Your task to perform on an android device: Show me popular videos on Youtube Image 0: 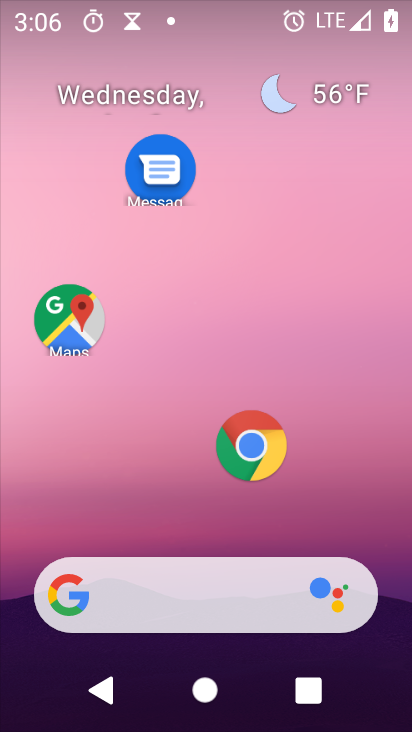
Step 0: drag from (191, 238) to (195, 29)
Your task to perform on an android device: Show me popular videos on Youtube Image 1: 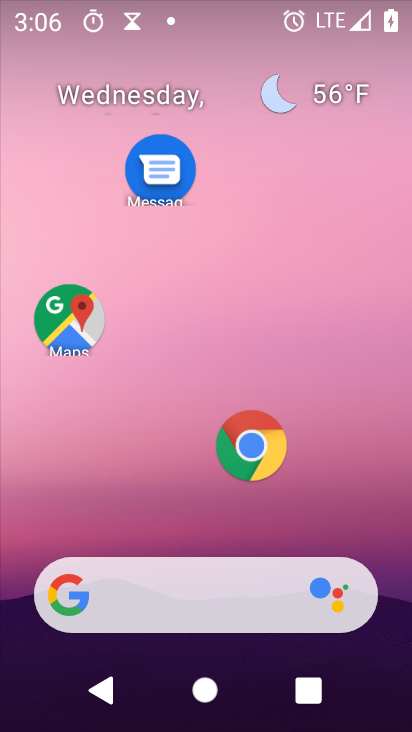
Step 1: drag from (163, 515) to (210, 0)
Your task to perform on an android device: Show me popular videos on Youtube Image 2: 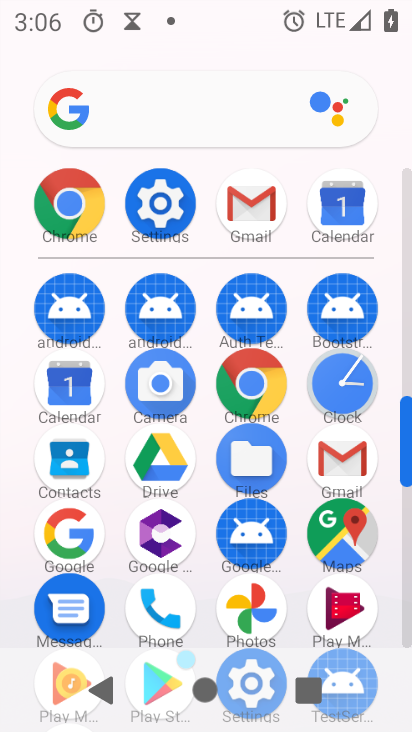
Step 2: drag from (213, 253) to (157, 0)
Your task to perform on an android device: Show me popular videos on Youtube Image 3: 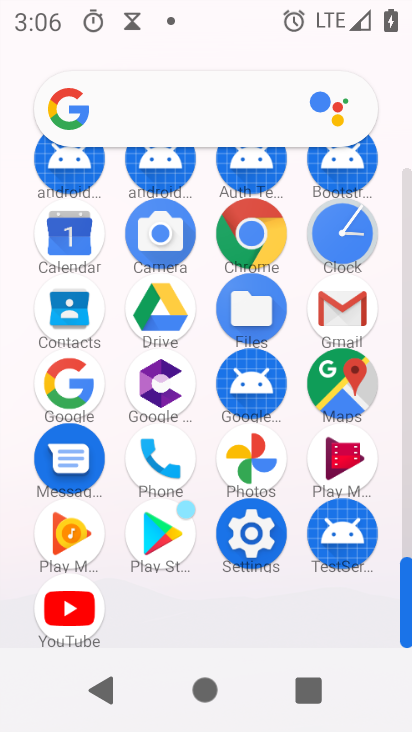
Step 3: click (80, 620)
Your task to perform on an android device: Show me popular videos on Youtube Image 4: 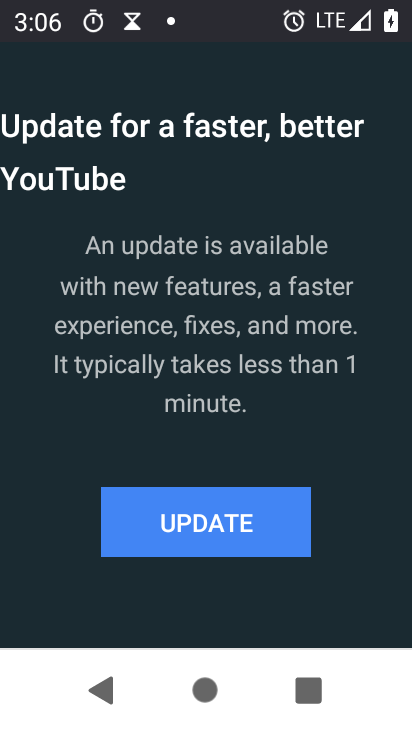
Step 4: click (211, 549)
Your task to perform on an android device: Show me popular videos on Youtube Image 5: 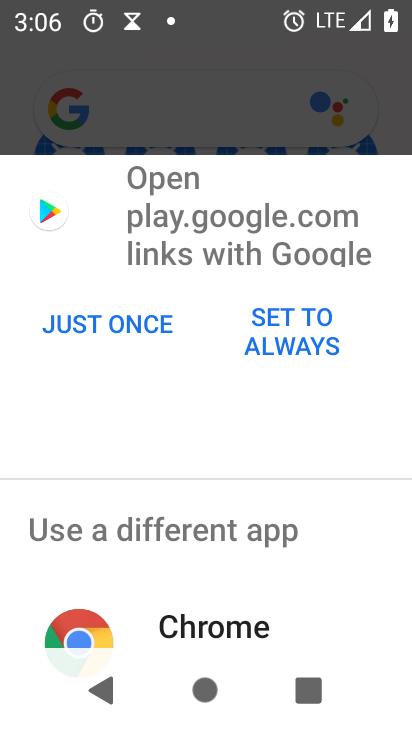
Step 5: click (92, 318)
Your task to perform on an android device: Show me popular videos on Youtube Image 6: 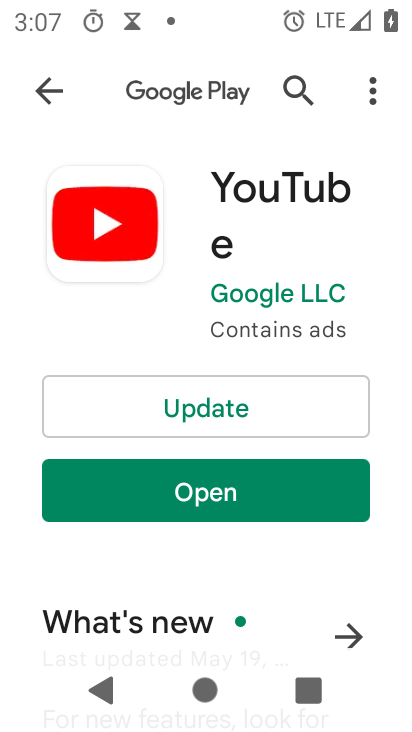
Step 6: click (212, 411)
Your task to perform on an android device: Show me popular videos on Youtube Image 7: 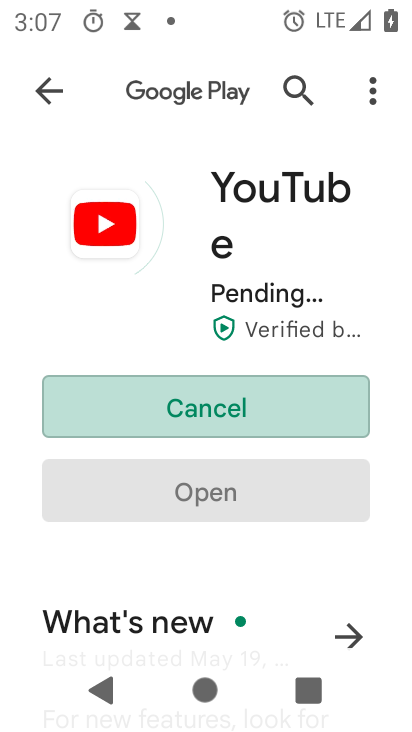
Step 7: click (119, 333)
Your task to perform on an android device: Show me popular videos on Youtube Image 8: 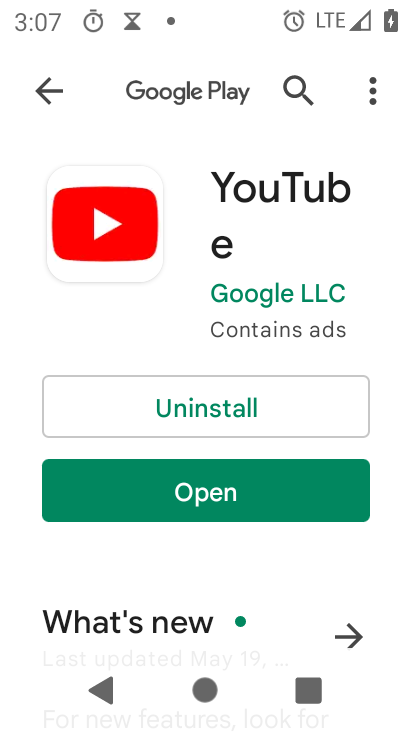
Step 8: click (217, 506)
Your task to perform on an android device: Show me popular videos on Youtube Image 9: 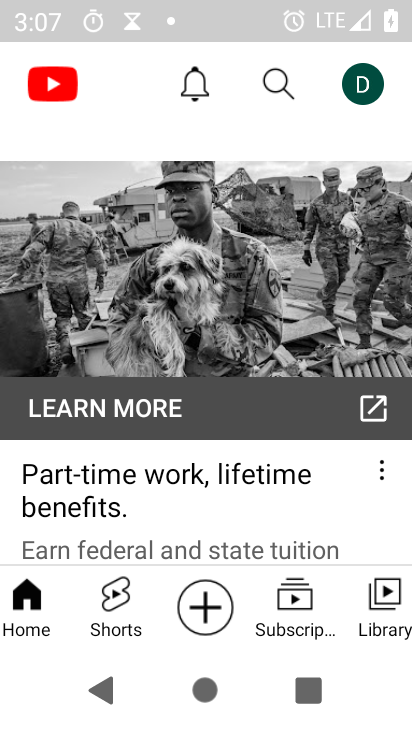
Step 9: click (25, 609)
Your task to perform on an android device: Show me popular videos on Youtube Image 10: 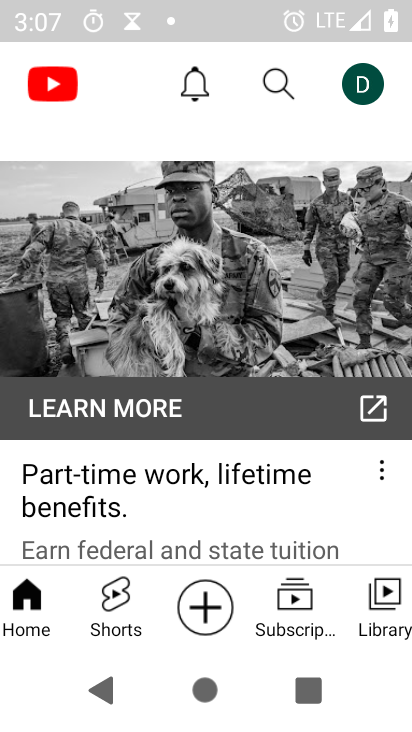
Step 10: drag from (128, 263) to (196, 523)
Your task to perform on an android device: Show me popular videos on Youtube Image 11: 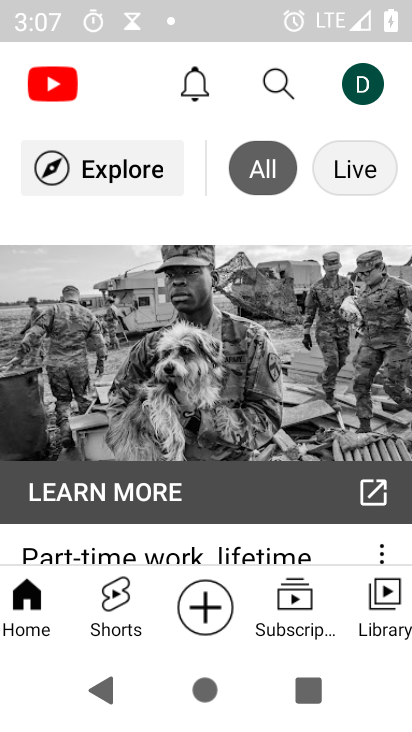
Step 11: click (86, 189)
Your task to perform on an android device: Show me popular videos on Youtube Image 12: 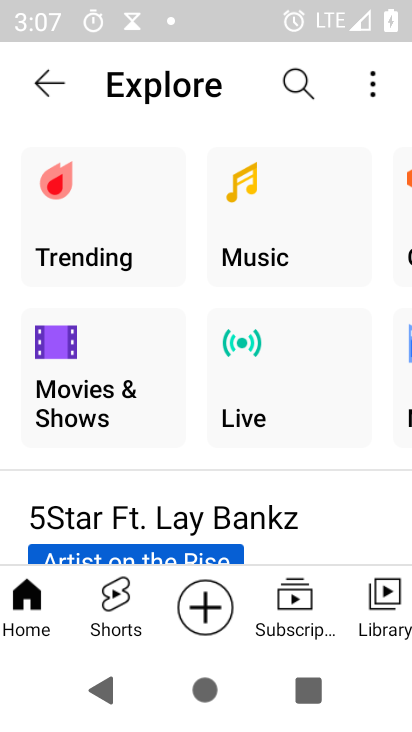
Step 12: click (108, 227)
Your task to perform on an android device: Show me popular videos on Youtube Image 13: 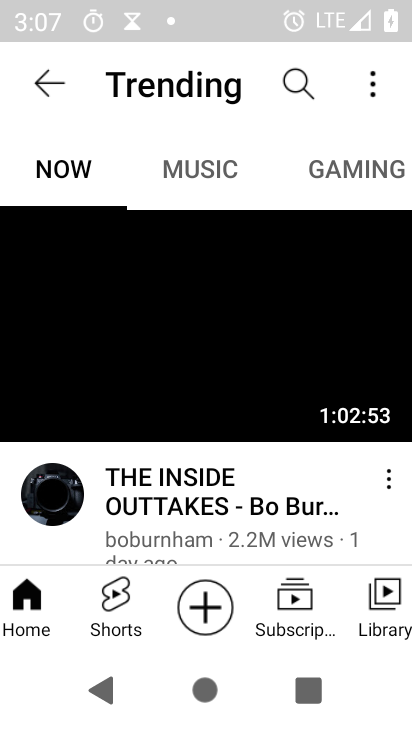
Step 13: task complete